Your task to perform on an android device: What's the weather? Image 0: 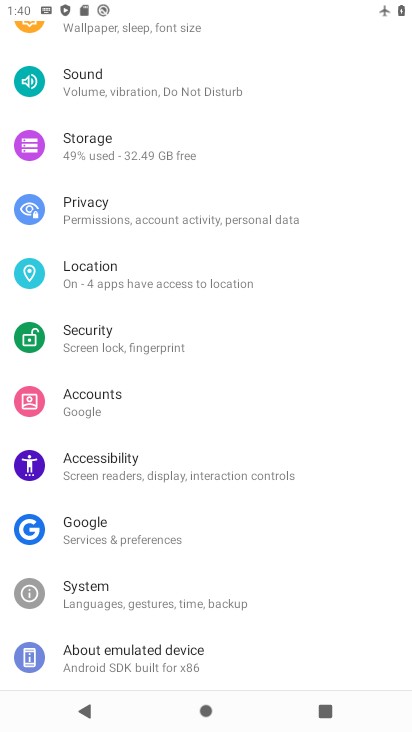
Step 0: press home button
Your task to perform on an android device: What's the weather? Image 1: 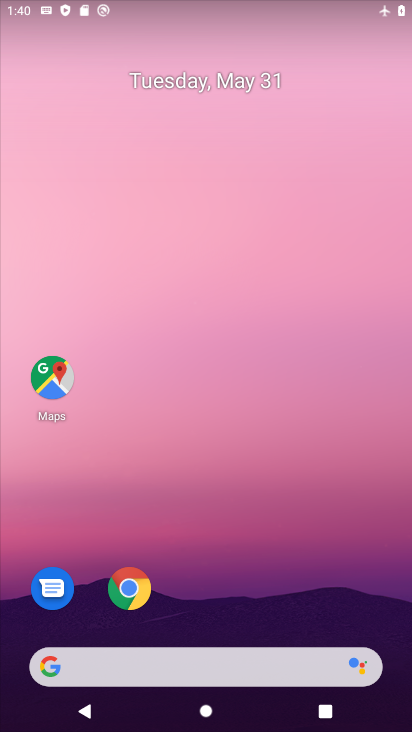
Step 1: click (265, 676)
Your task to perform on an android device: What's the weather? Image 2: 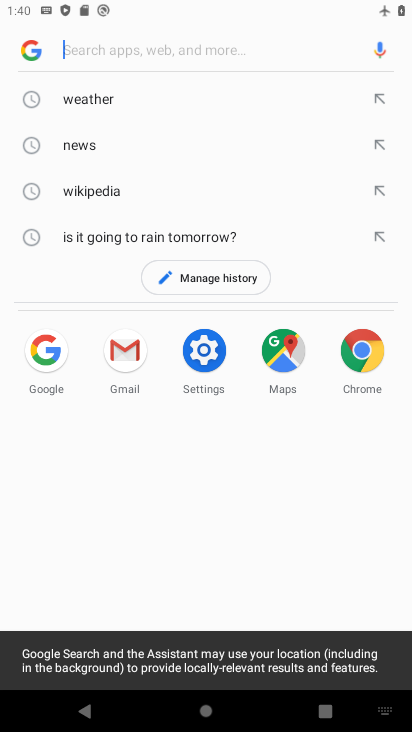
Step 2: click (129, 51)
Your task to perform on an android device: What's the weather? Image 3: 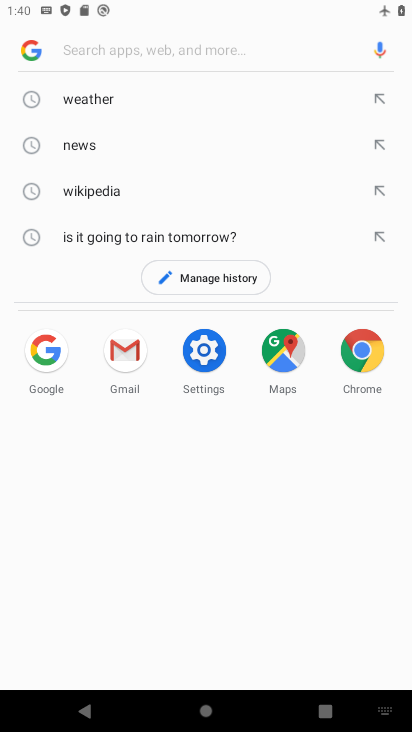
Step 3: type "What's the weather?"
Your task to perform on an android device: What's the weather? Image 4: 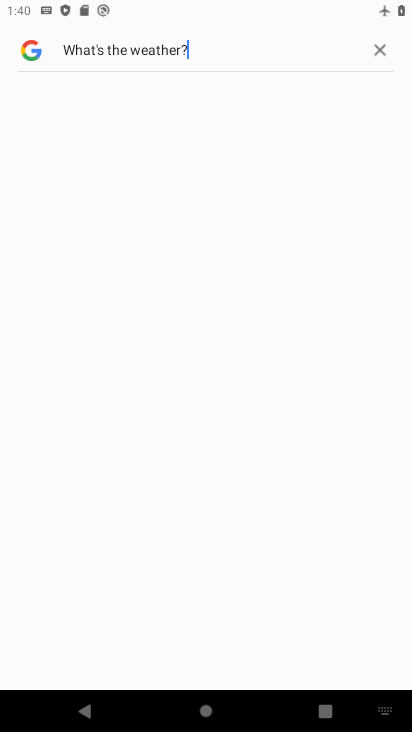
Step 4: press enter
Your task to perform on an android device: What's the weather? Image 5: 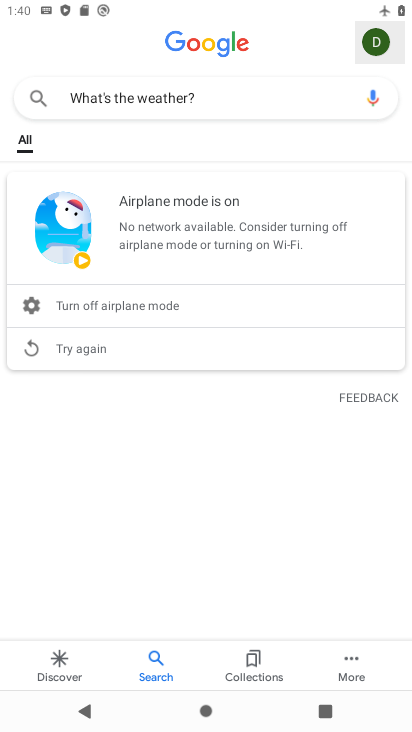
Step 5: task complete